Your task to perform on an android device: turn off airplane mode Image 0: 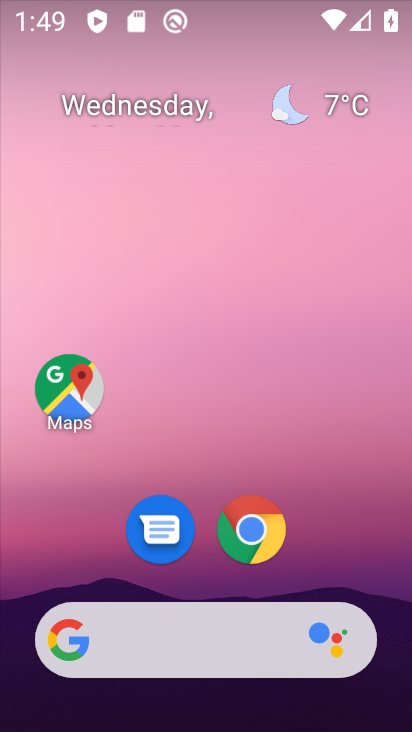
Step 0: drag from (60, 408) to (142, 161)
Your task to perform on an android device: turn off airplane mode Image 1: 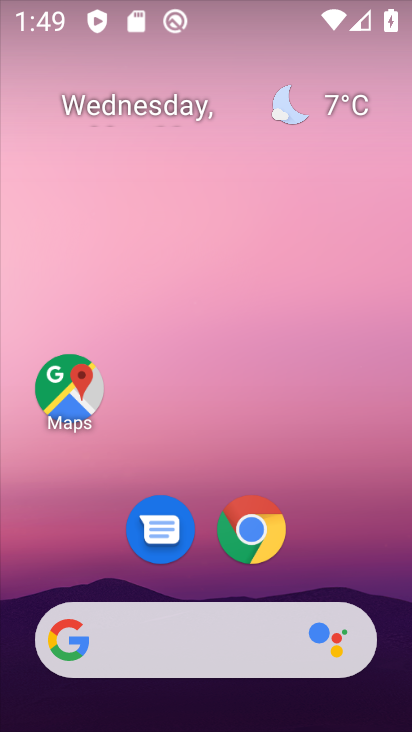
Step 1: drag from (10, 601) to (286, 34)
Your task to perform on an android device: turn off airplane mode Image 2: 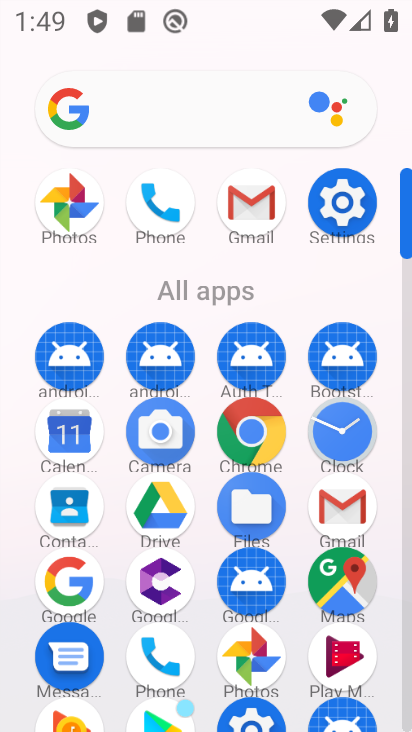
Step 2: click (351, 198)
Your task to perform on an android device: turn off airplane mode Image 3: 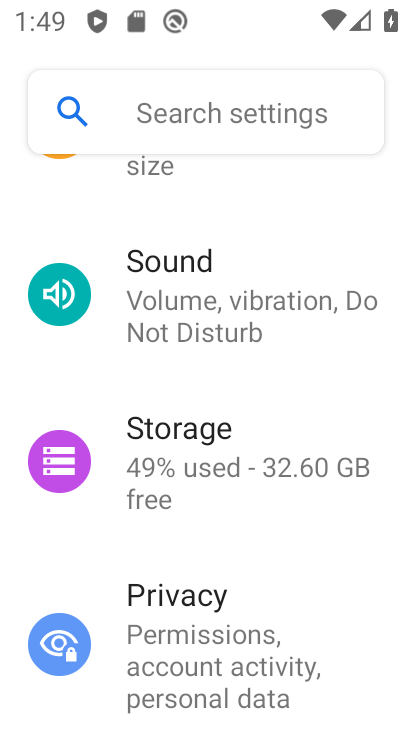
Step 3: drag from (280, 212) to (232, 706)
Your task to perform on an android device: turn off airplane mode Image 4: 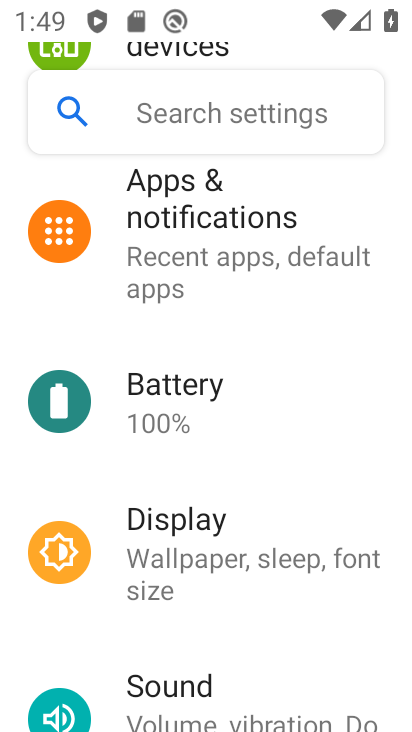
Step 4: drag from (216, 192) to (217, 617)
Your task to perform on an android device: turn off airplane mode Image 5: 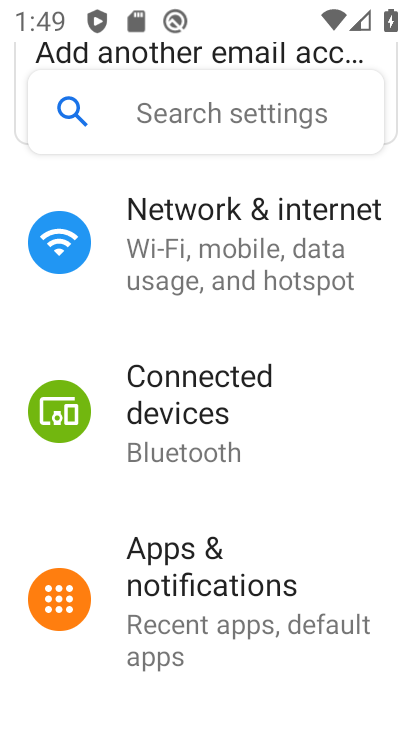
Step 5: click (276, 245)
Your task to perform on an android device: turn off airplane mode Image 6: 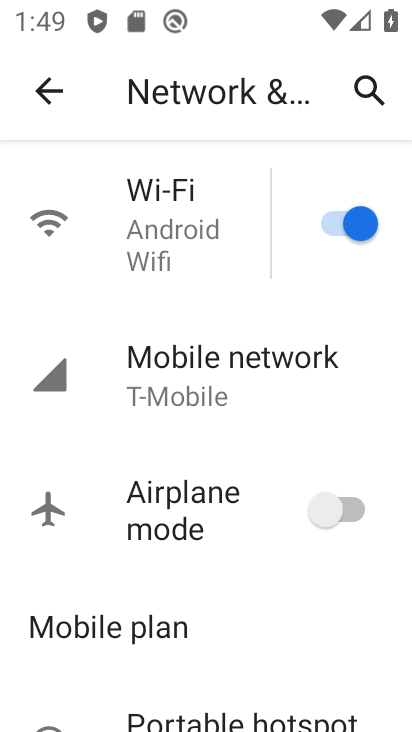
Step 6: task complete